Your task to perform on an android device: Open Google Chrome Image 0: 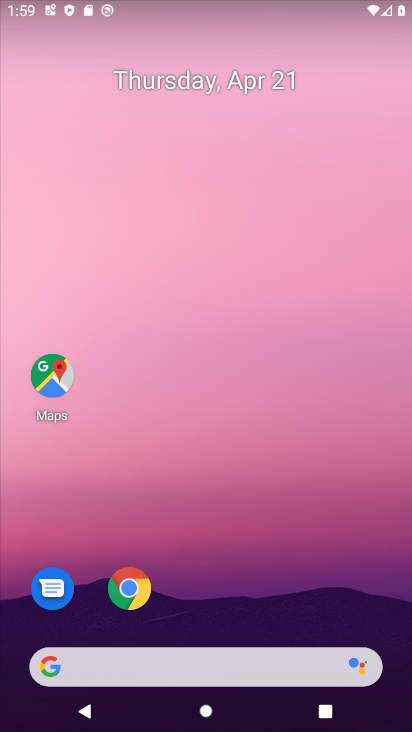
Step 0: drag from (213, 651) to (261, 23)
Your task to perform on an android device: Open Google Chrome Image 1: 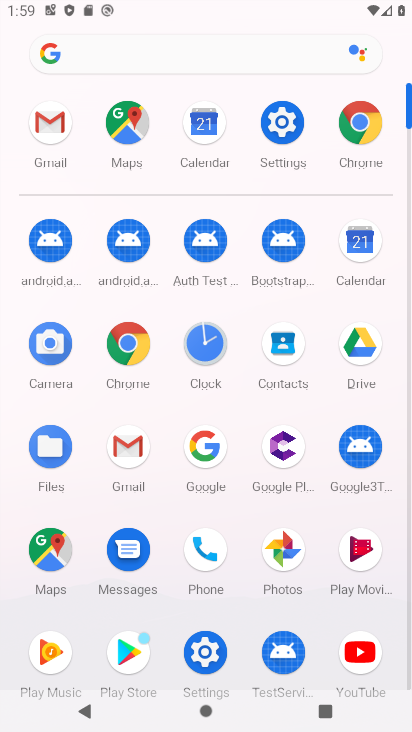
Step 1: click (363, 132)
Your task to perform on an android device: Open Google Chrome Image 2: 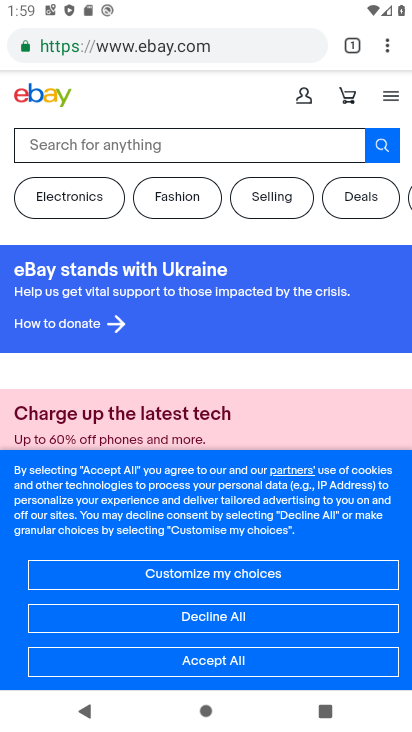
Step 2: task complete